Your task to perform on an android device: Open calendar and show me the third week of next month Image 0: 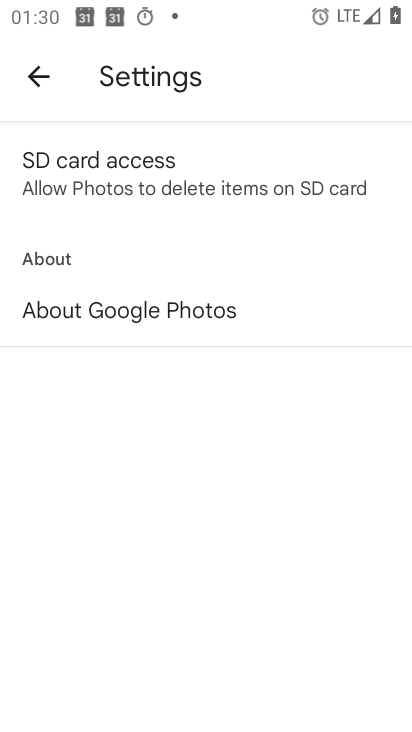
Step 0: press home button
Your task to perform on an android device: Open calendar and show me the third week of next month Image 1: 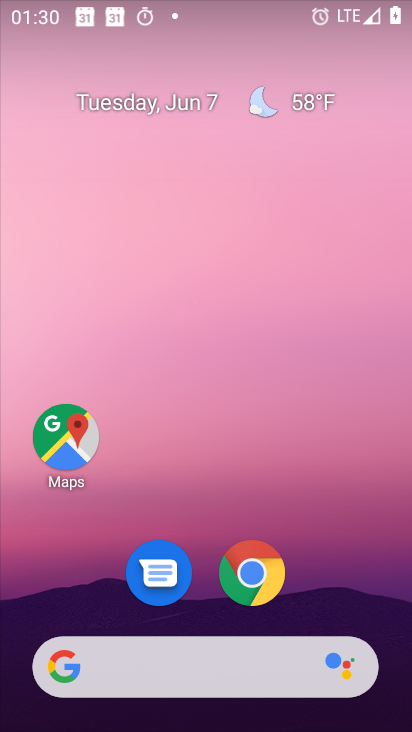
Step 1: drag from (362, 528) to (343, 102)
Your task to perform on an android device: Open calendar and show me the third week of next month Image 2: 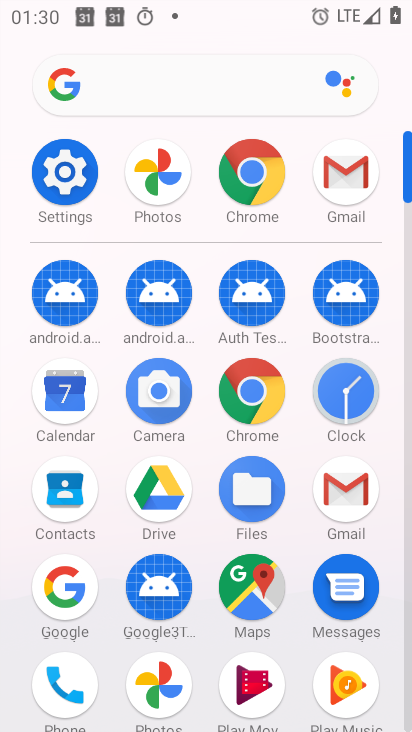
Step 2: click (41, 395)
Your task to perform on an android device: Open calendar and show me the third week of next month Image 3: 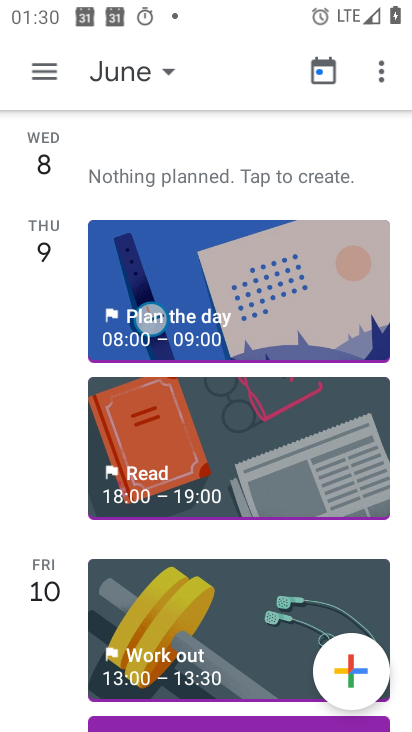
Step 3: click (108, 71)
Your task to perform on an android device: Open calendar and show me the third week of next month Image 4: 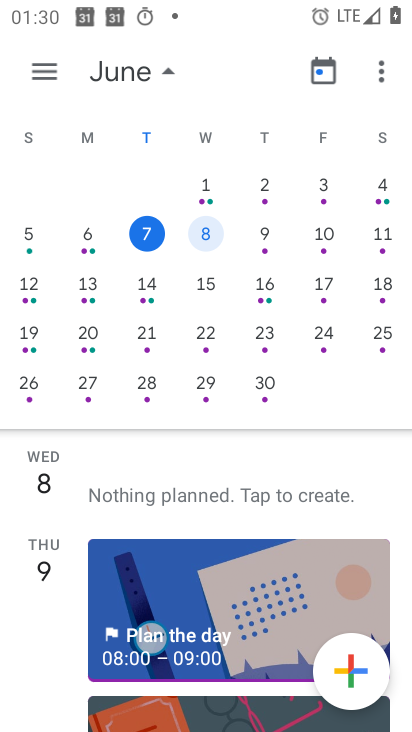
Step 4: drag from (306, 292) to (28, 257)
Your task to perform on an android device: Open calendar and show me the third week of next month Image 5: 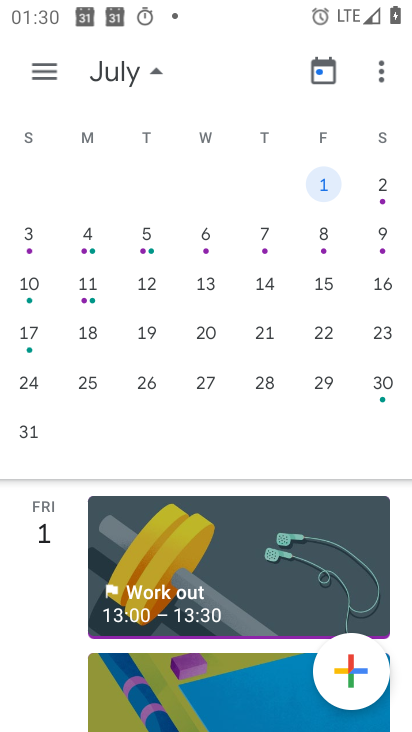
Step 5: click (327, 328)
Your task to perform on an android device: Open calendar and show me the third week of next month Image 6: 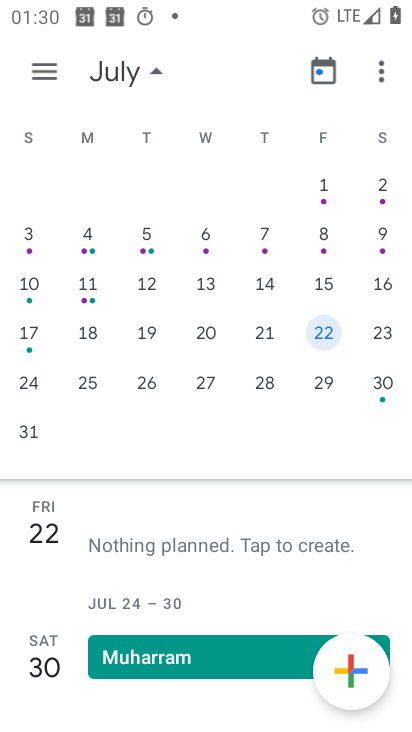
Step 6: task complete